Your task to perform on an android device: snooze an email in the gmail app Image 0: 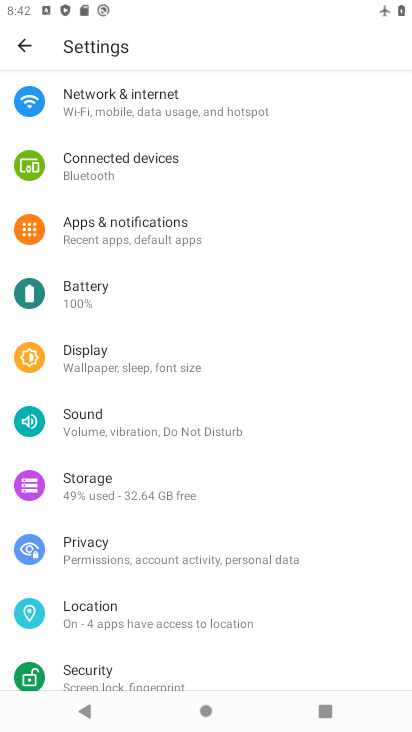
Step 0: press home button
Your task to perform on an android device: snooze an email in the gmail app Image 1: 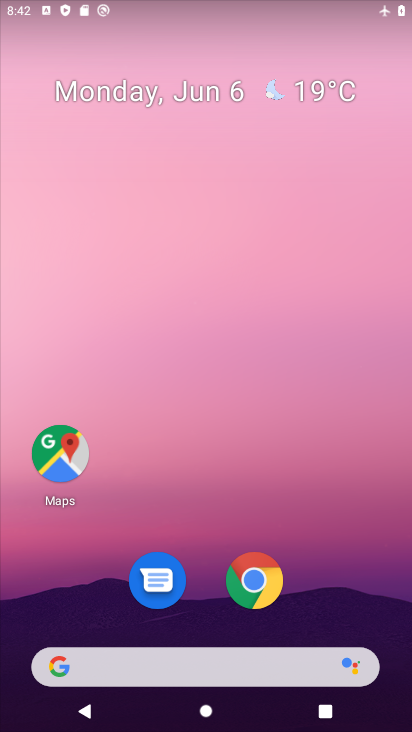
Step 1: drag from (175, 670) to (261, 35)
Your task to perform on an android device: snooze an email in the gmail app Image 2: 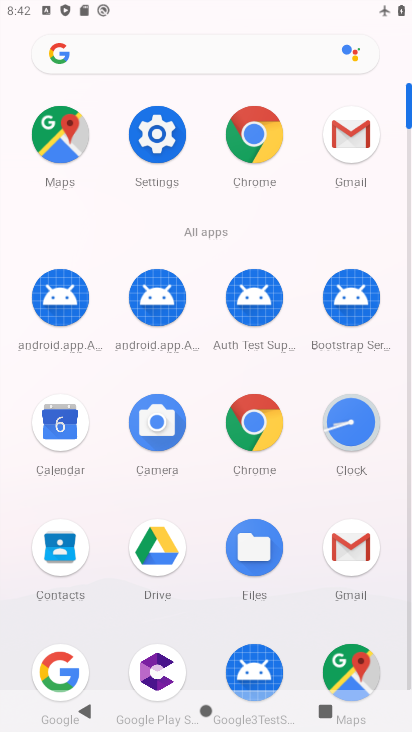
Step 2: click (355, 541)
Your task to perform on an android device: snooze an email in the gmail app Image 3: 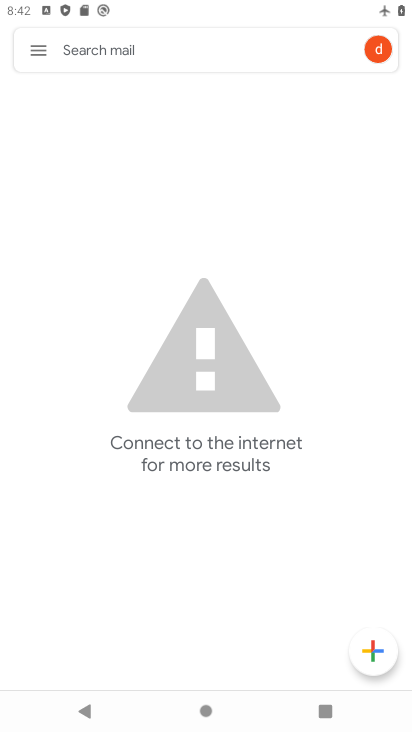
Step 3: click (27, 52)
Your task to perform on an android device: snooze an email in the gmail app Image 4: 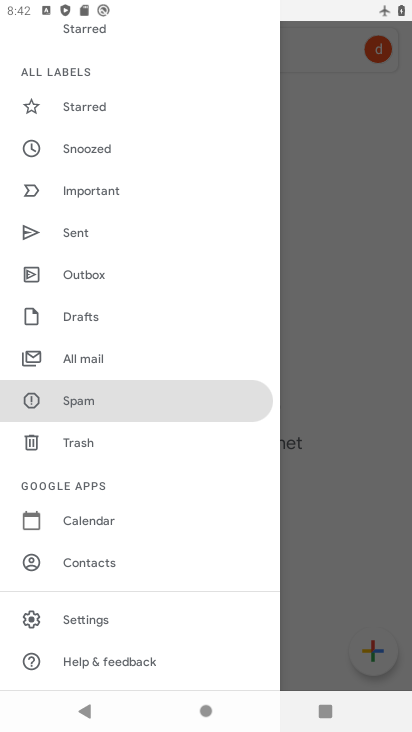
Step 4: click (100, 153)
Your task to perform on an android device: snooze an email in the gmail app Image 5: 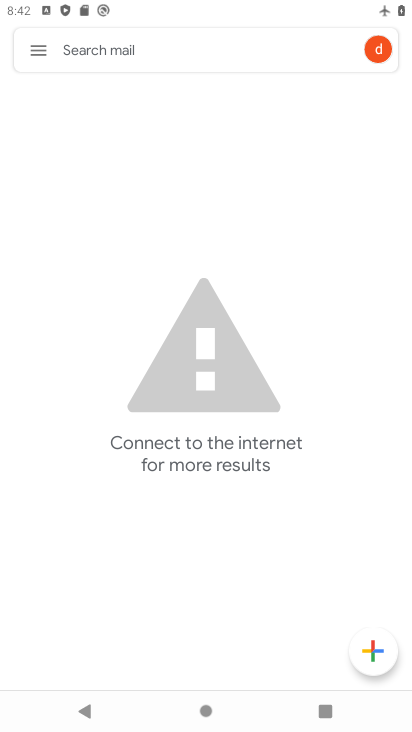
Step 5: task complete